Your task to perform on an android device: Toggle the flashlight Image 0: 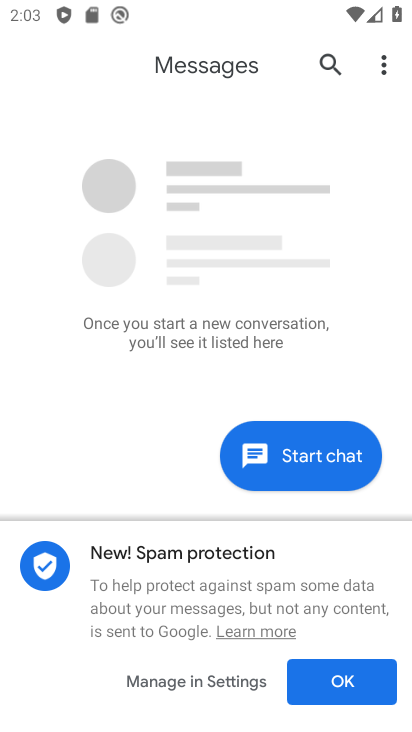
Step 0: press home button
Your task to perform on an android device: Toggle the flashlight Image 1: 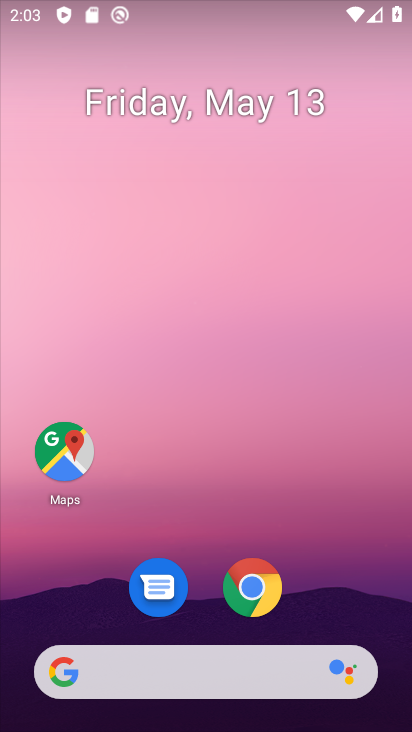
Step 1: drag from (280, 633) to (351, 207)
Your task to perform on an android device: Toggle the flashlight Image 2: 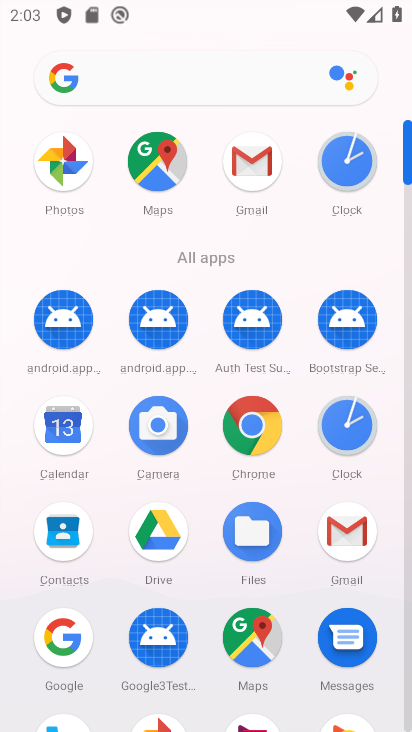
Step 2: drag from (188, 46) to (323, 613)
Your task to perform on an android device: Toggle the flashlight Image 3: 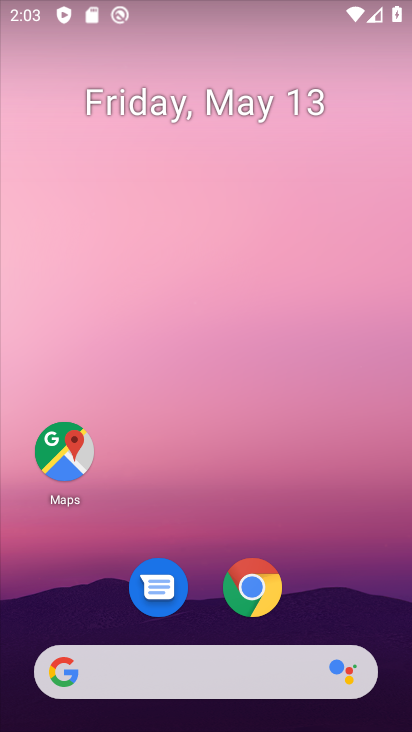
Step 3: drag from (175, 16) to (262, 382)
Your task to perform on an android device: Toggle the flashlight Image 4: 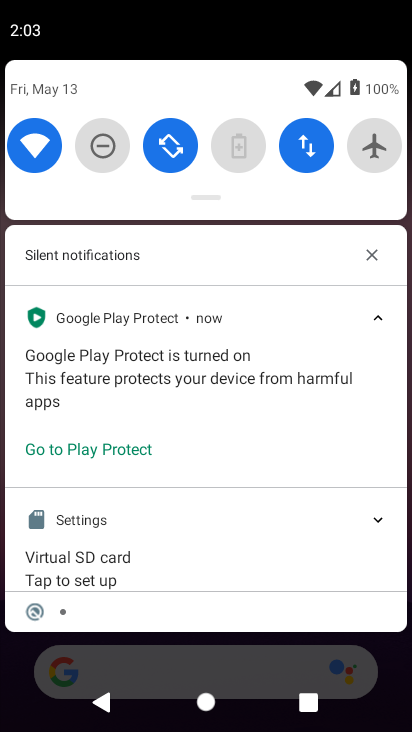
Step 4: drag from (297, 206) to (380, 709)
Your task to perform on an android device: Toggle the flashlight Image 5: 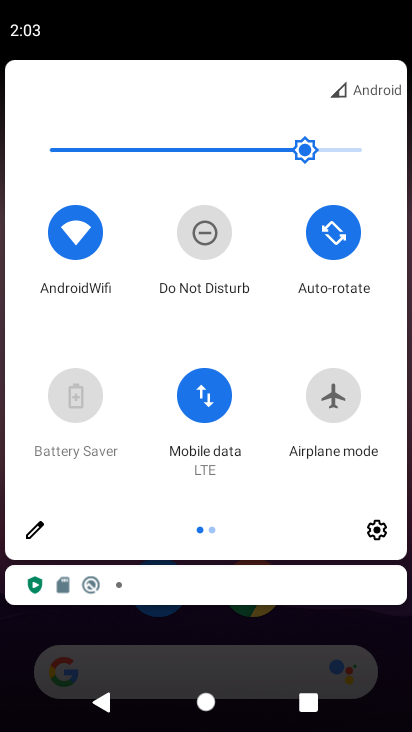
Step 5: click (30, 522)
Your task to perform on an android device: Toggle the flashlight Image 6: 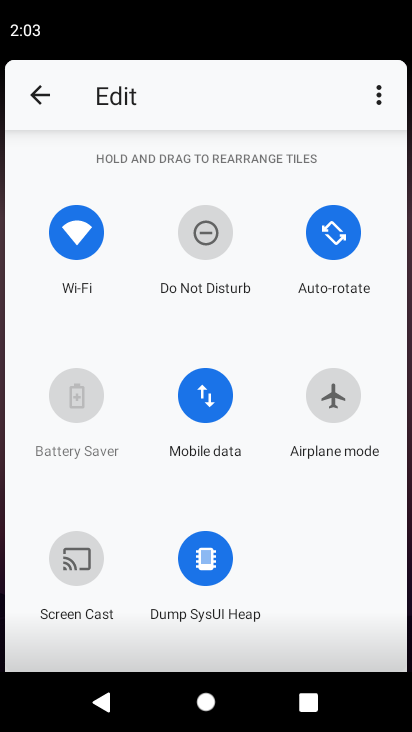
Step 6: click (285, 572)
Your task to perform on an android device: Toggle the flashlight Image 7: 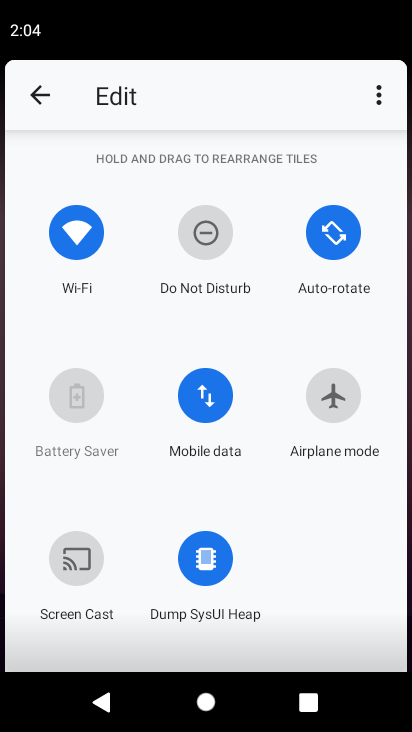
Step 7: task complete